Your task to perform on an android device: Open Amazon Image 0: 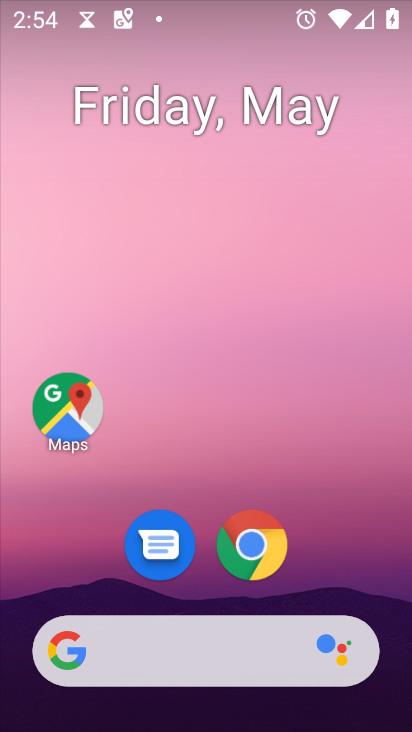
Step 0: click (253, 541)
Your task to perform on an android device: Open Amazon Image 1: 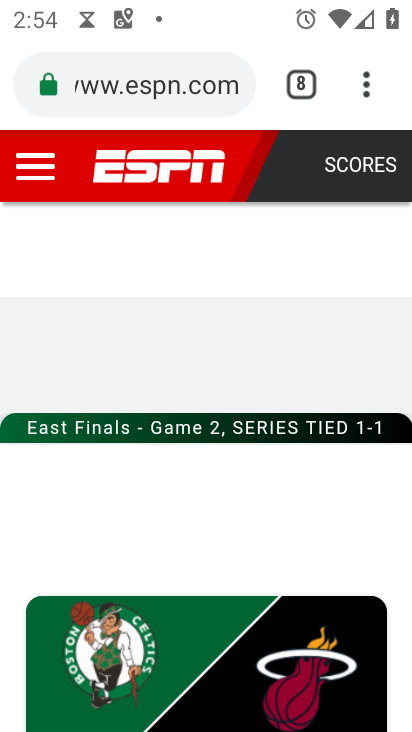
Step 1: click (307, 77)
Your task to perform on an android device: Open Amazon Image 2: 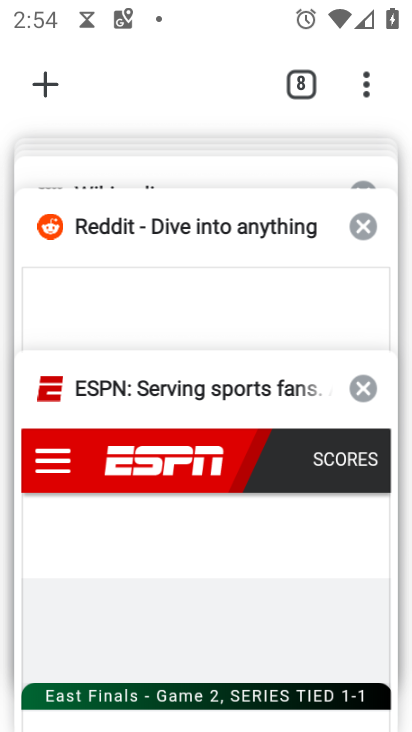
Step 2: click (45, 81)
Your task to perform on an android device: Open Amazon Image 3: 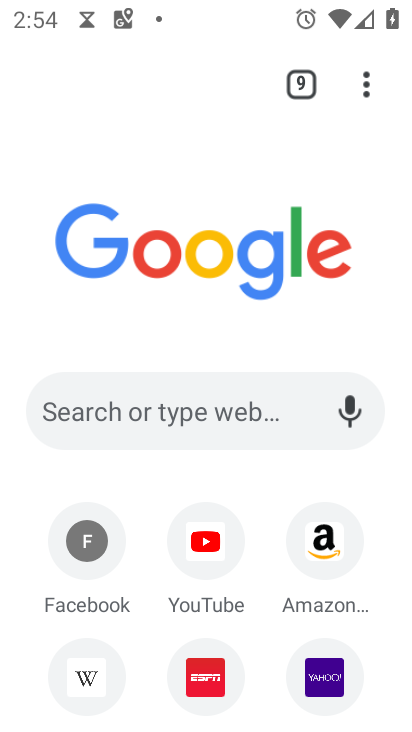
Step 3: click (333, 551)
Your task to perform on an android device: Open Amazon Image 4: 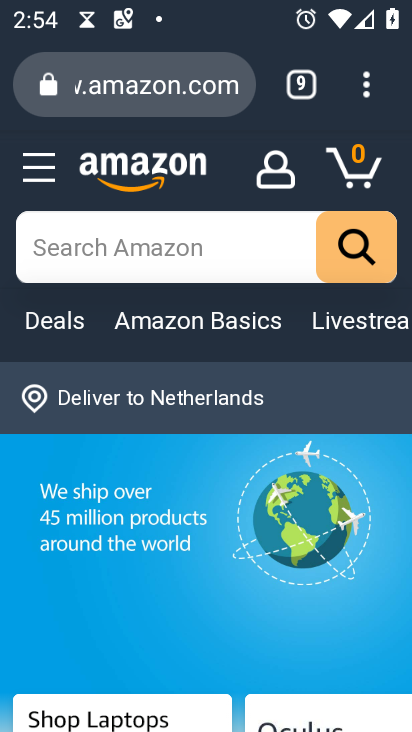
Step 4: task complete